Your task to perform on an android device: Open the web browser Image 0: 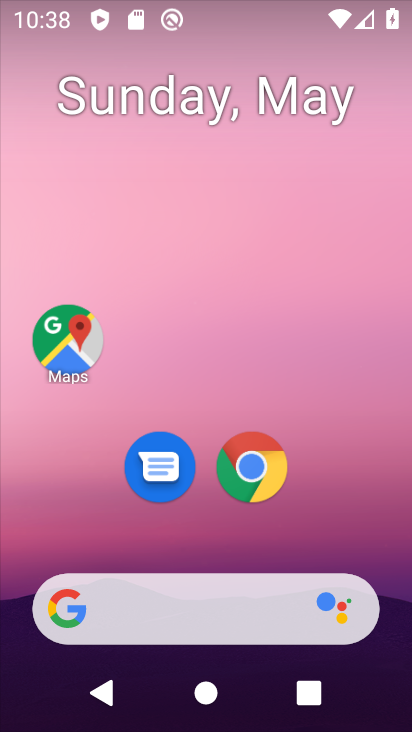
Step 0: click (262, 472)
Your task to perform on an android device: Open the web browser Image 1: 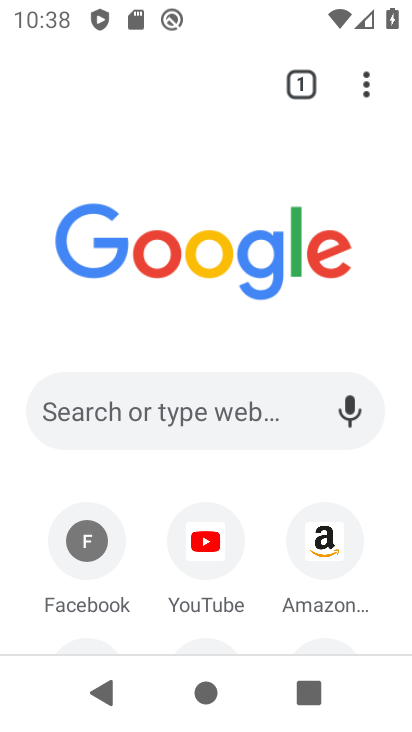
Step 1: task complete